Your task to perform on an android device: Open calendar and show me the fourth week of next month Image 0: 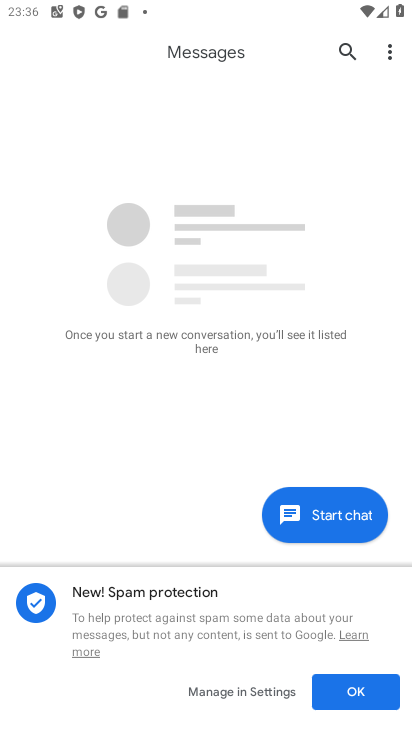
Step 0: press home button
Your task to perform on an android device: Open calendar and show me the fourth week of next month Image 1: 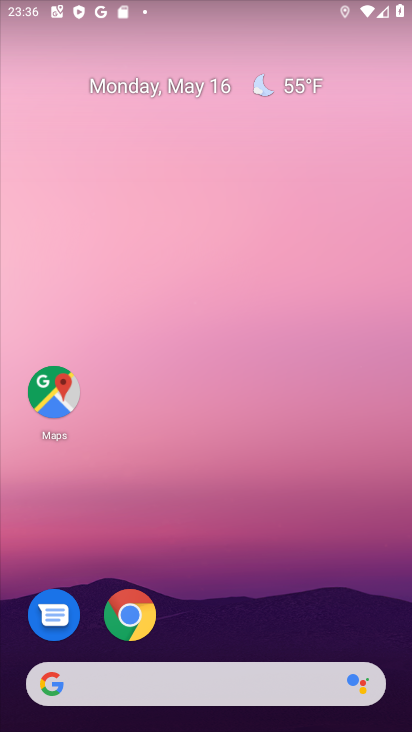
Step 1: drag from (197, 647) to (135, 35)
Your task to perform on an android device: Open calendar and show me the fourth week of next month Image 2: 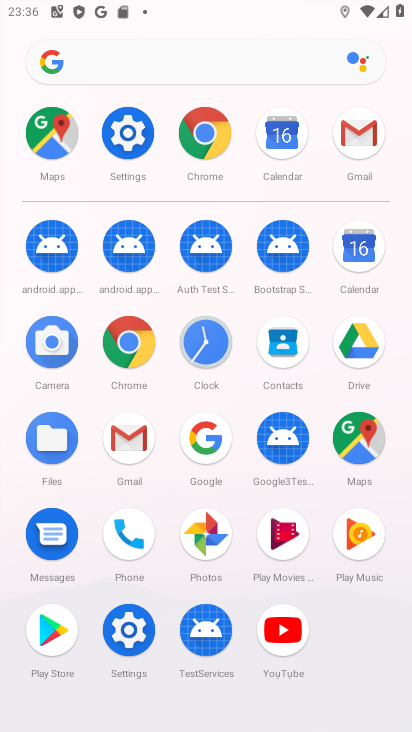
Step 2: click (351, 246)
Your task to perform on an android device: Open calendar and show me the fourth week of next month Image 3: 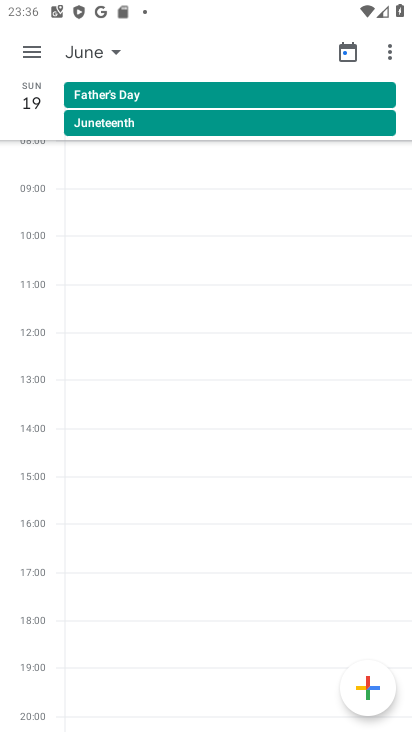
Step 3: press home button
Your task to perform on an android device: Open calendar and show me the fourth week of next month Image 4: 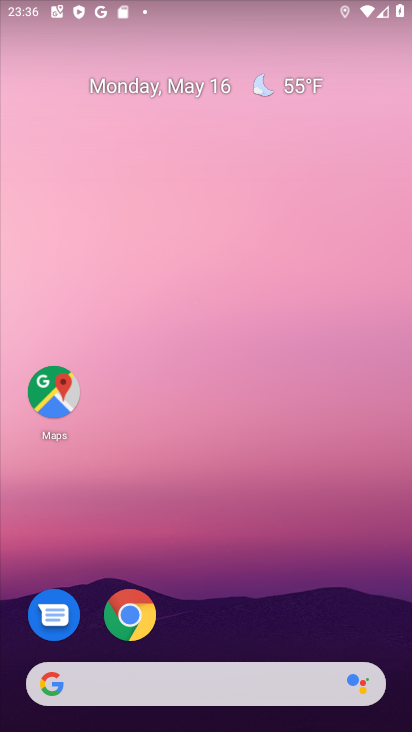
Step 4: drag from (202, 637) to (156, 22)
Your task to perform on an android device: Open calendar and show me the fourth week of next month Image 5: 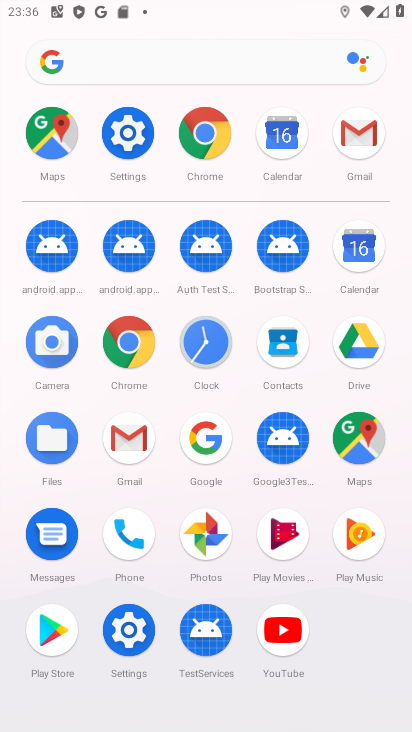
Step 5: click (368, 243)
Your task to perform on an android device: Open calendar and show me the fourth week of next month Image 6: 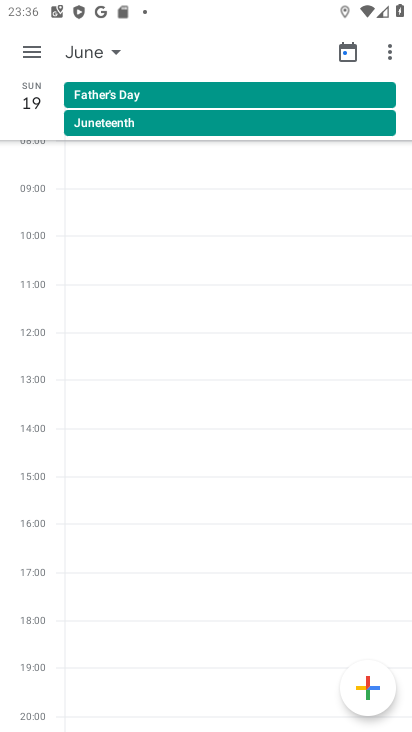
Step 6: click (30, 51)
Your task to perform on an android device: Open calendar and show me the fourth week of next month Image 7: 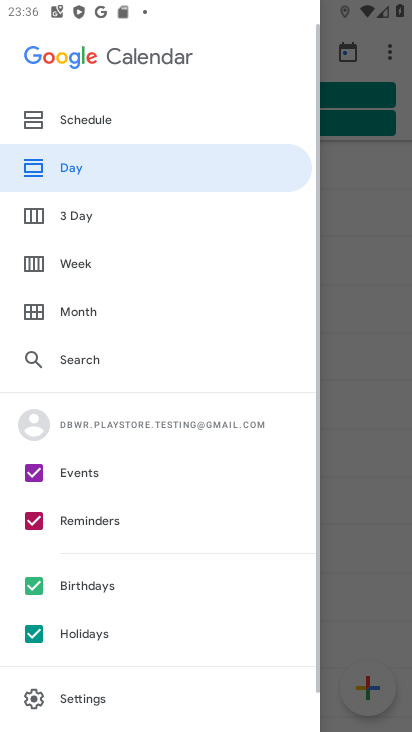
Step 7: click (73, 267)
Your task to perform on an android device: Open calendar and show me the fourth week of next month Image 8: 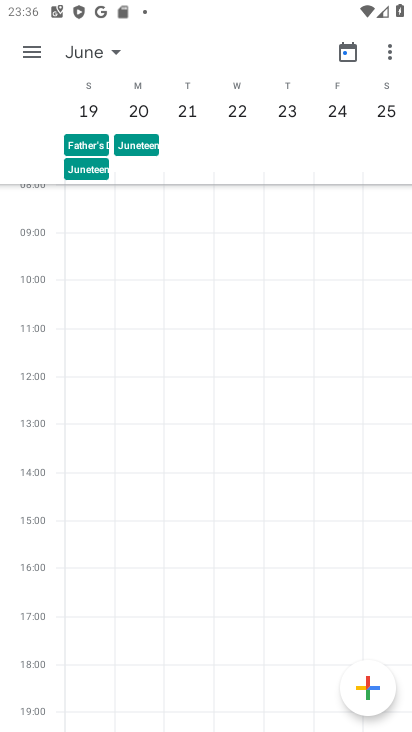
Step 8: task complete